Your task to perform on an android device: What is the recent news? Image 0: 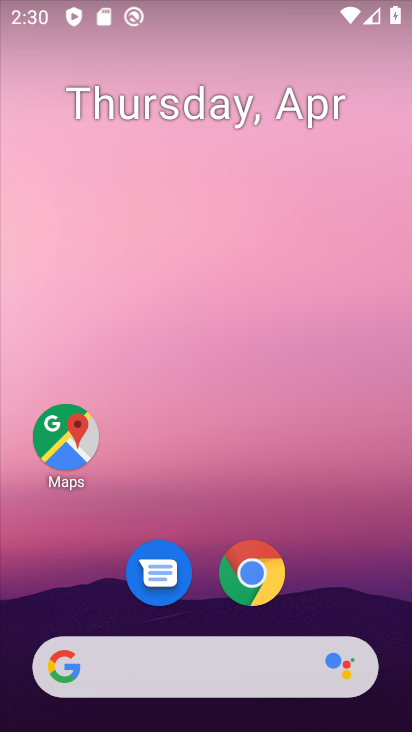
Step 0: drag from (337, 458) to (270, 33)
Your task to perform on an android device: What is the recent news? Image 1: 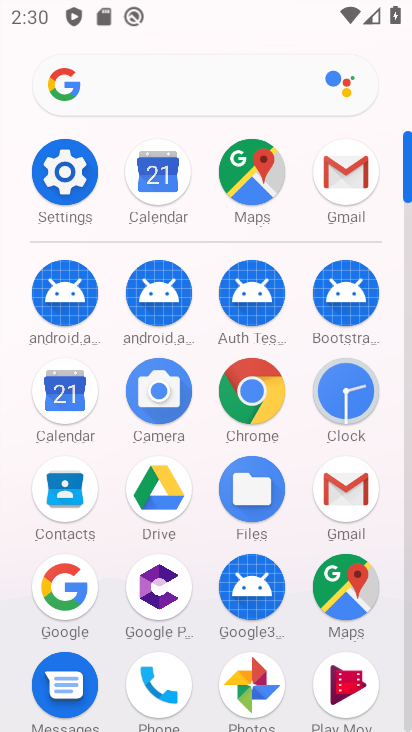
Step 1: click (258, 397)
Your task to perform on an android device: What is the recent news? Image 2: 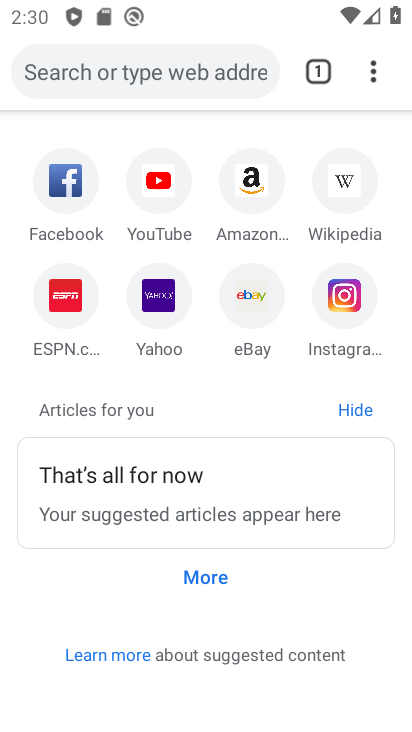
Step 2: click (217, 571)
Your task to perform on an android device: What is the recent news? Image 3: 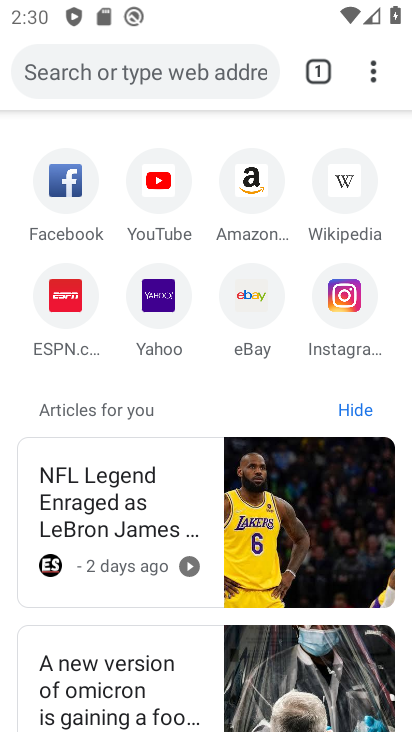
Step 3: click (132, 506)
Your task to perform on an android device: What is the recent news? Image 4: 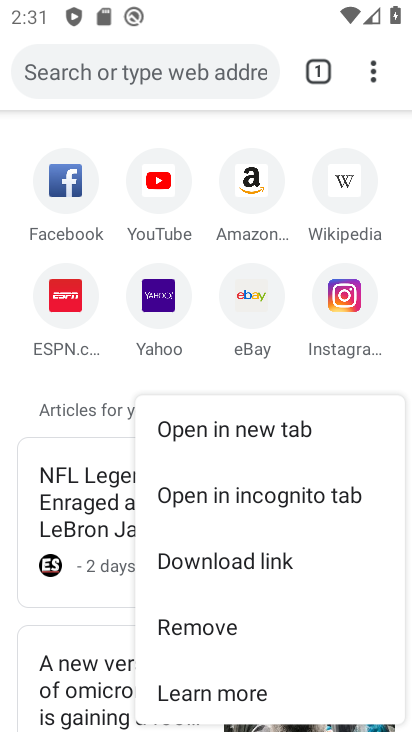
Step 4: click (98, 476)
Your task to perform on an android device: What is the recent news? Image 5: 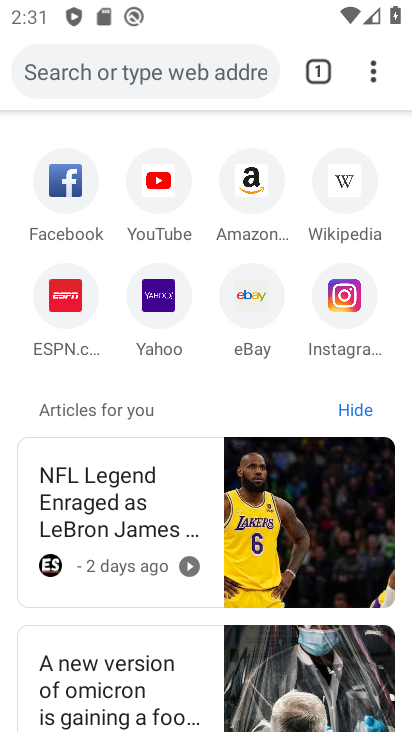
Step 5: click (98, 476)
Your task to perform on an android device: What is the recent news? Image 6: 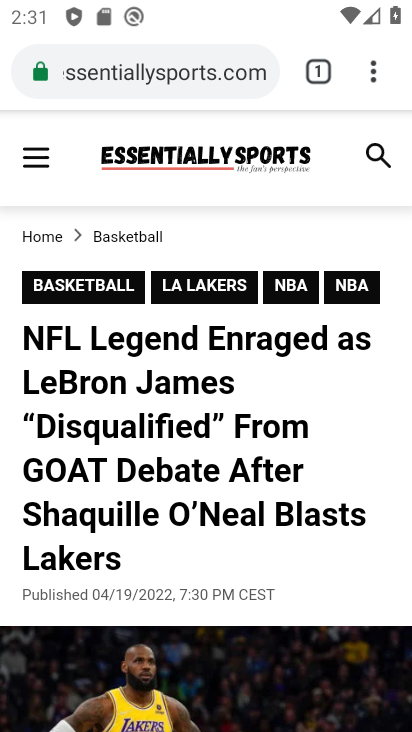
Step 6: task complete